Your task to perform on an android device: clear history in the chrome app Image 0: 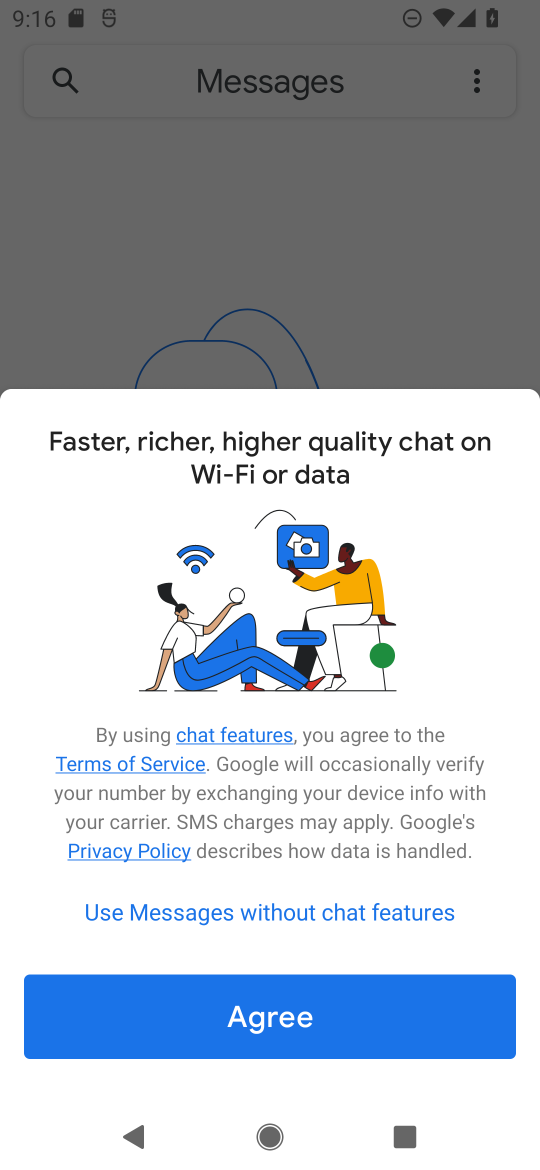
Step 0: press home button
Your task to perform on an android device: clear history in the chrome app Image 1: 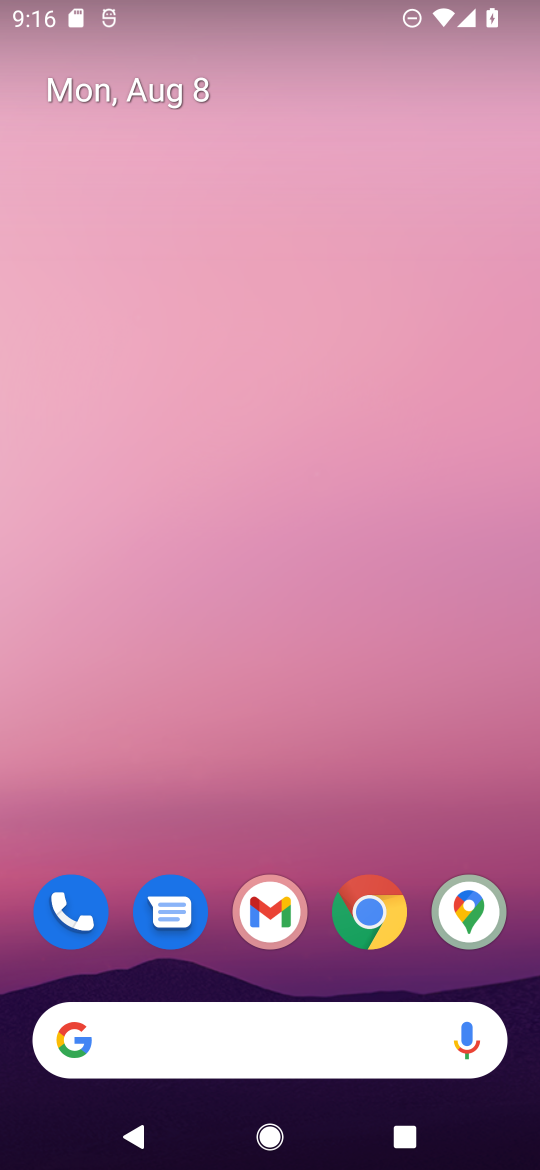
Step 1: drag from (525, 722) to (394, 6)
Your task to perform on an android device: clear history in the chrome app Image 2: 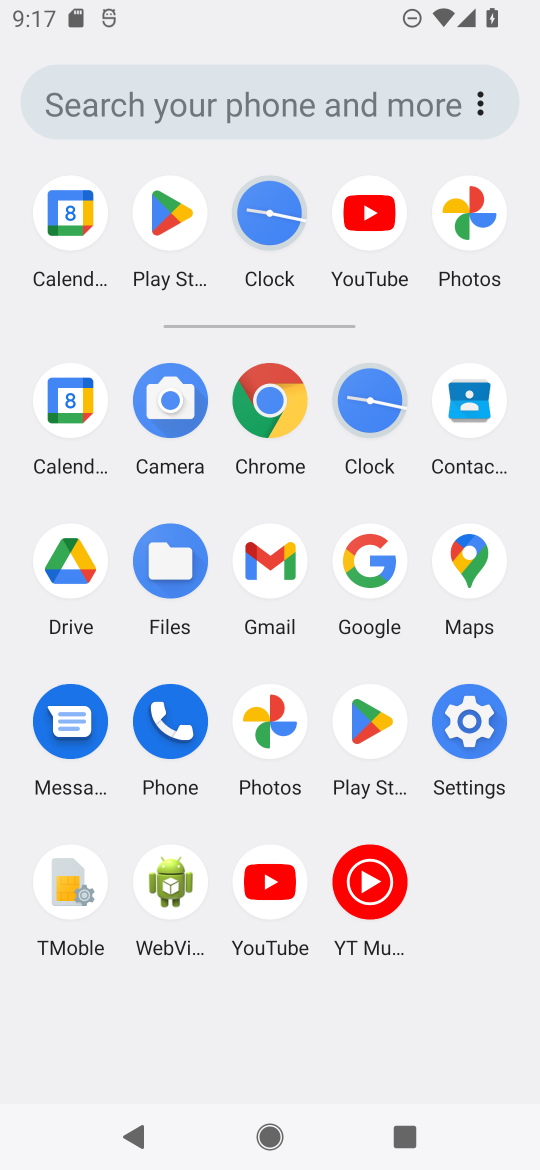
Step 2: click (257, 377)
Your task to perform on an android device: clear history in the chrome app Image 3: 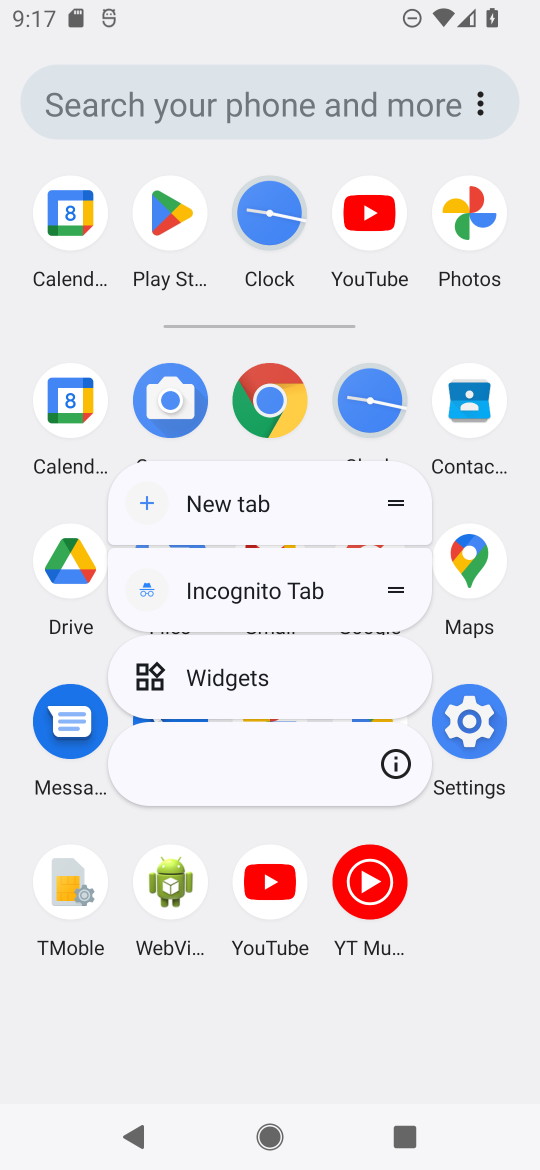
Step 3: click (257, 377)
Your task to perform on an android device: clear history in the chrome app Image 4: 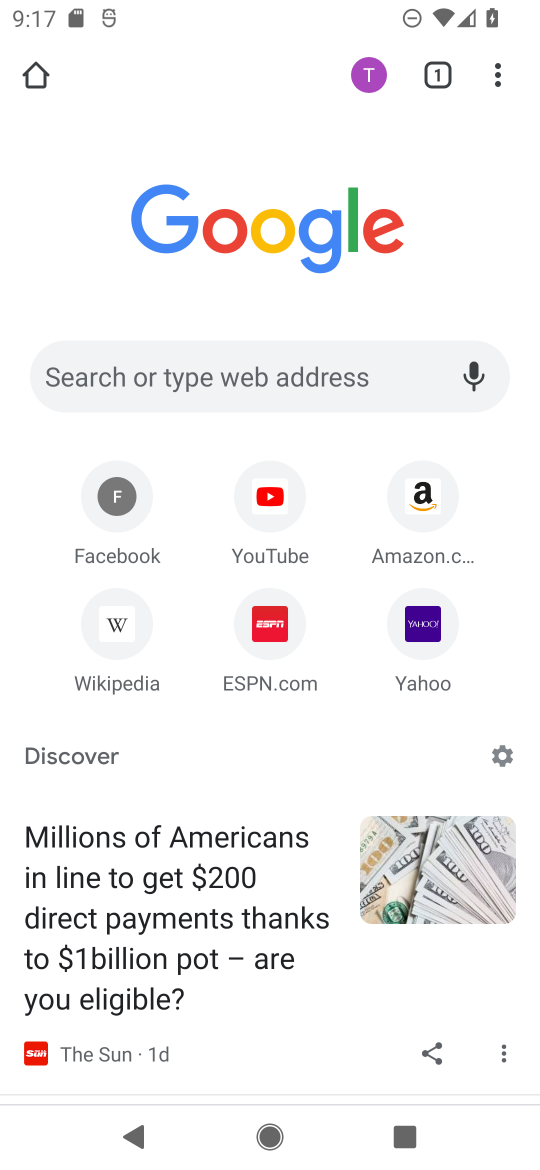
Step 4: click (503, 70)
Your task to perform on an android device: clear history in the chrome app Image 5: 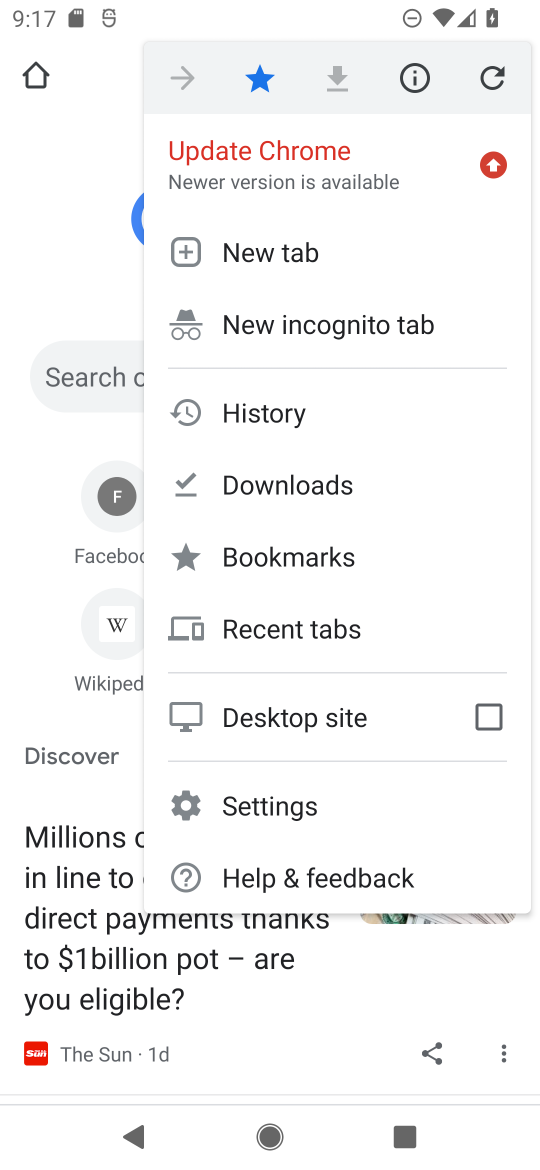
Step 5: click (306, 430)
Your task to perform on an android device: clear history in the chrome app Image 6: 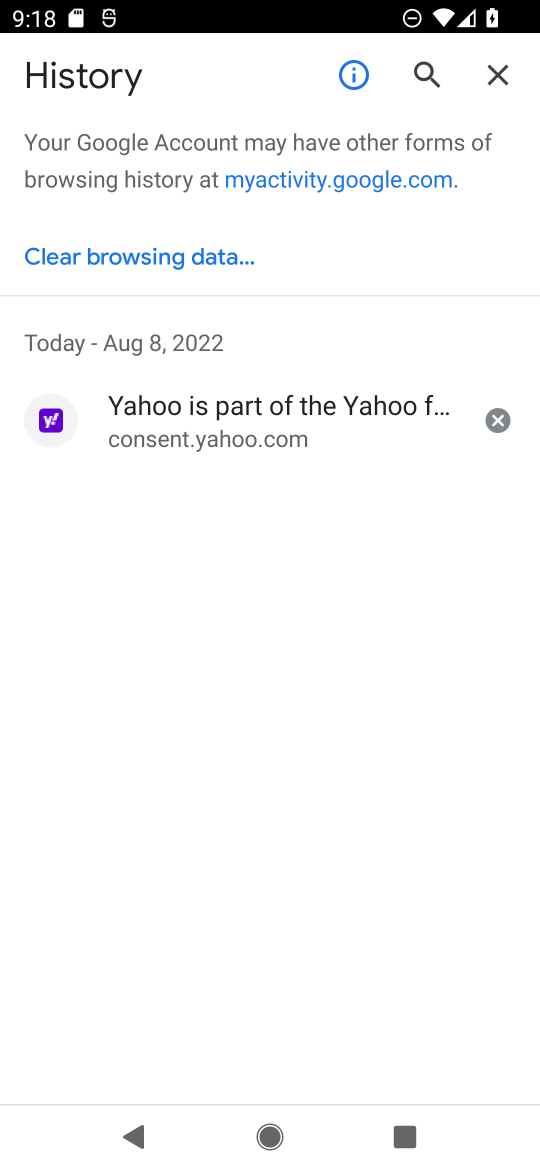
Step 6: click (206, 259)
Your task to perform on an android device: clear history in the chrome app Image 7: 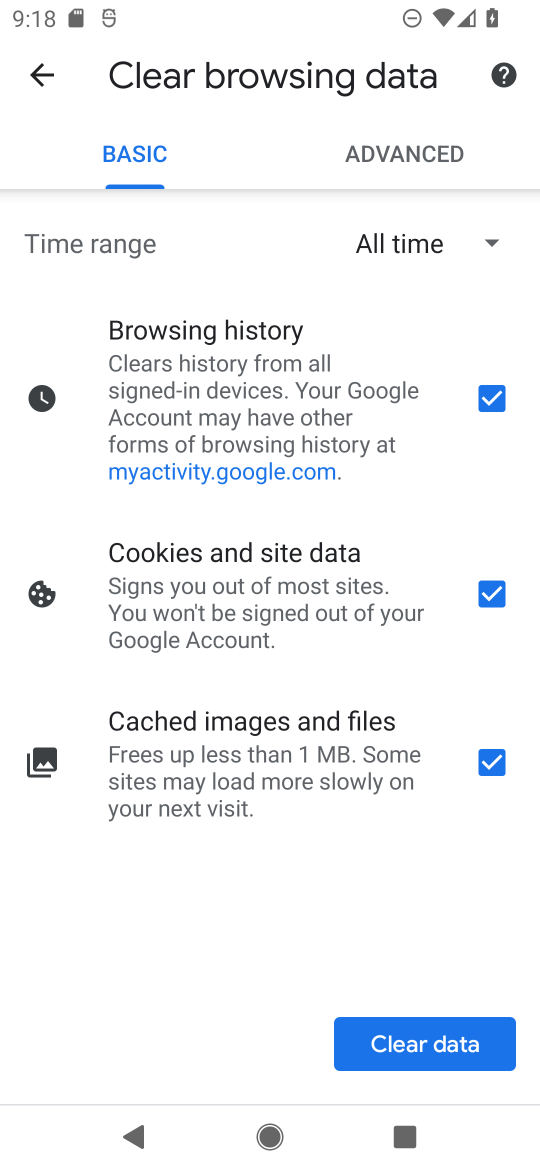
Step 7: click (464, 1038)
Your task to perform on an android device: clear history in the chrome app Image 8: 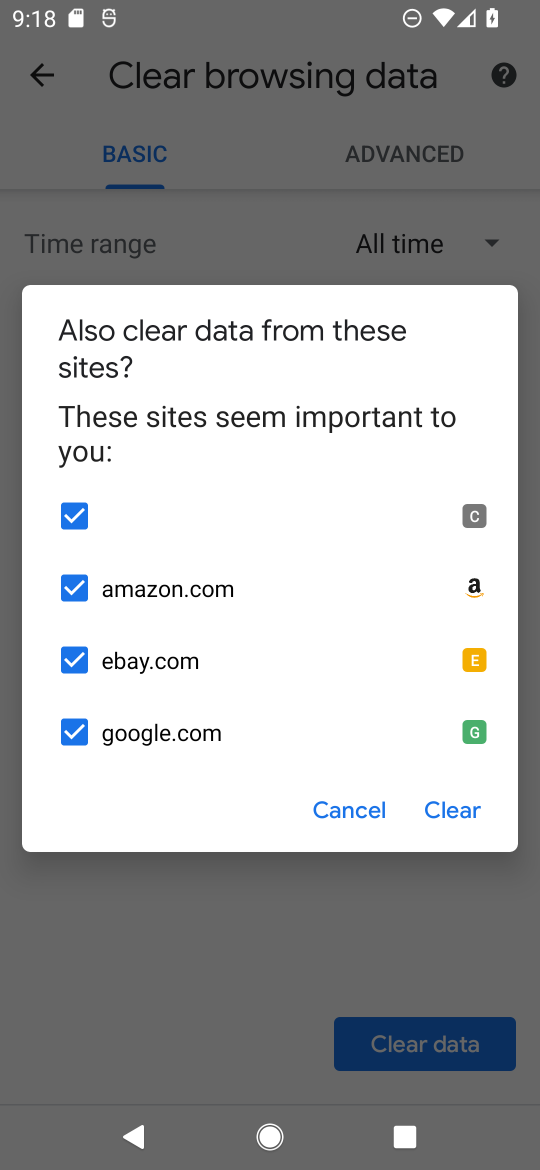
Step 8: click (472, 815)
Your task to perform on an android device: clear history in the chrome app Image 9: 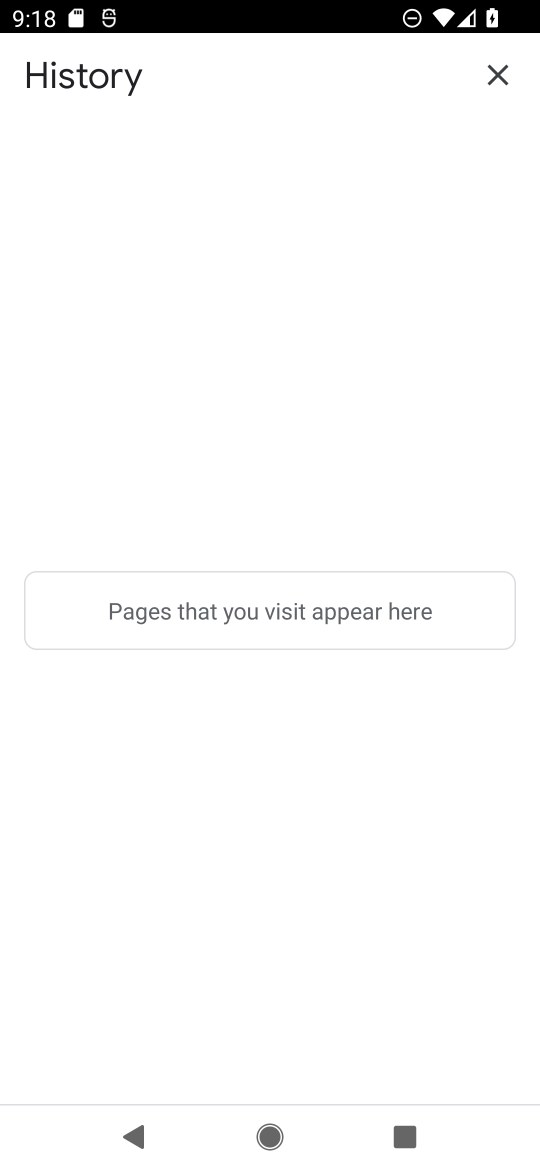
Step 9: task complete